Your task to perform on an android device: open chrome and create a bookmark for the current page Image 0: 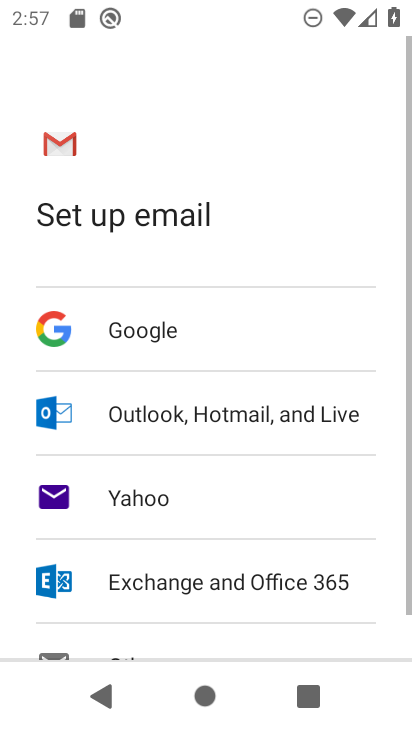
Step 0: press back button
Your task to perform on an android device: open chrome and create a bookmark for the current page Image 1: 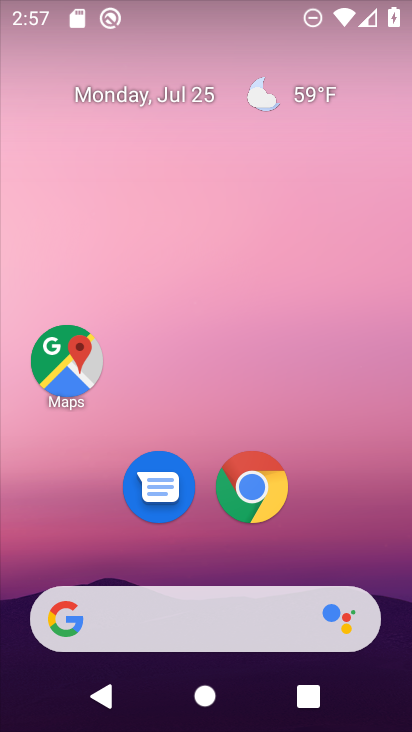
Step 1: click (259, 480)
Your task to perform on an android device: open chrome and create a bookmark for the current page Image 2: 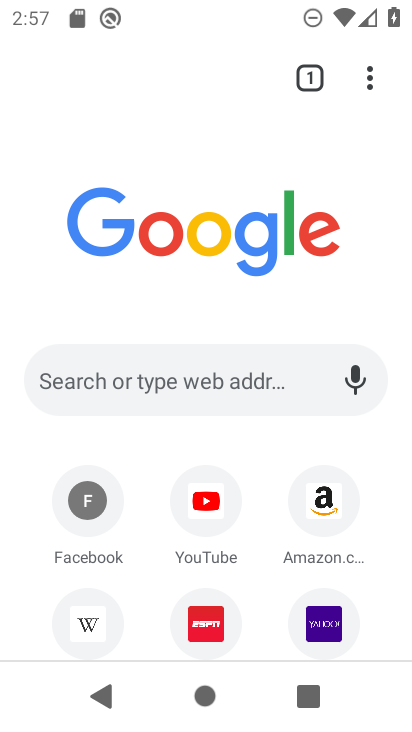
Step 2: task complete